Your task to perform on an android device: Open Android settings Image 0: 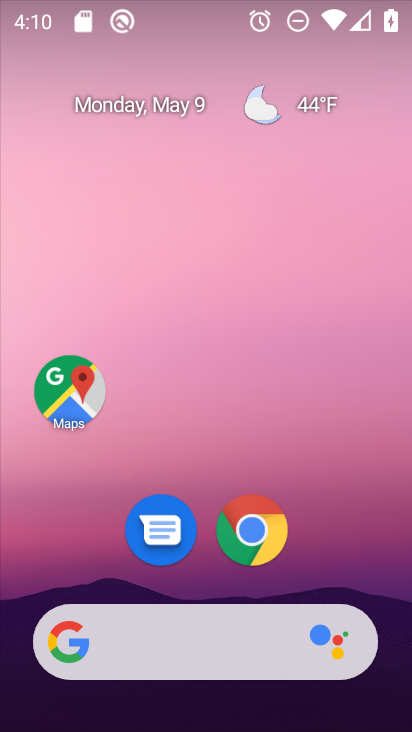
Step 0: press home button
Your task to perform on an android device: Open Android settings Image 1: 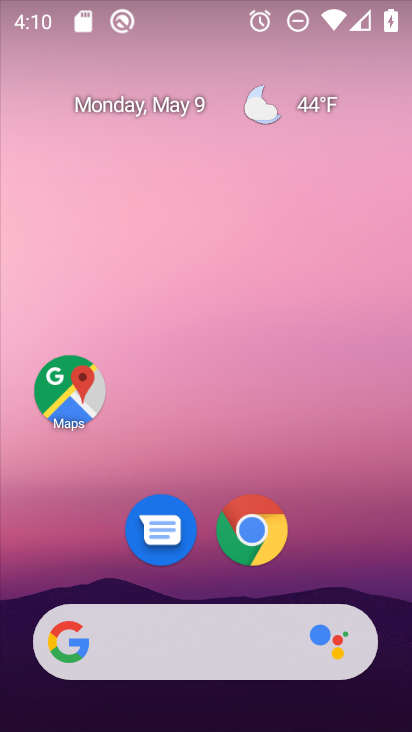
Step 1: press home button
Your task to perform on an android device: Open Android settings Image 2: 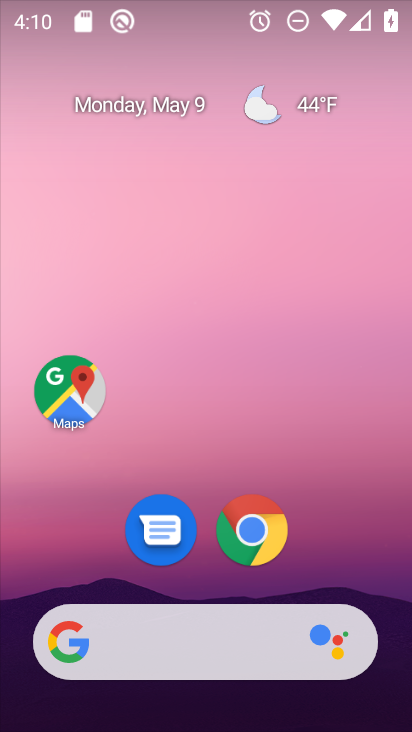
Step 2: drag from (207, 554) to (266, 83)
Your task to perform on an android device: Open Android settings Image 3: 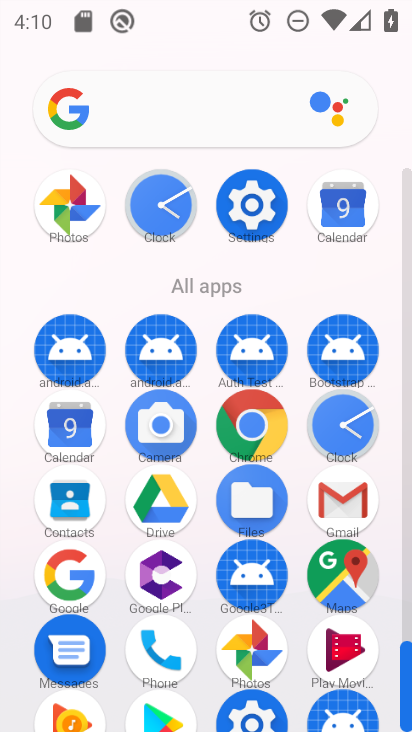
Step 3: click (252, 199)
Your task to perform on an android device: Open Android settings Image 4: 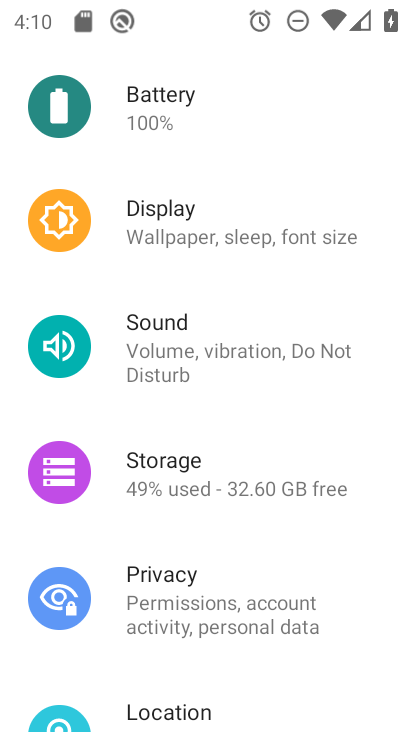
Step 4: drag from (183, 644) to (235, 209)
Your task to perform on an android device: Open Android settings Image 5: 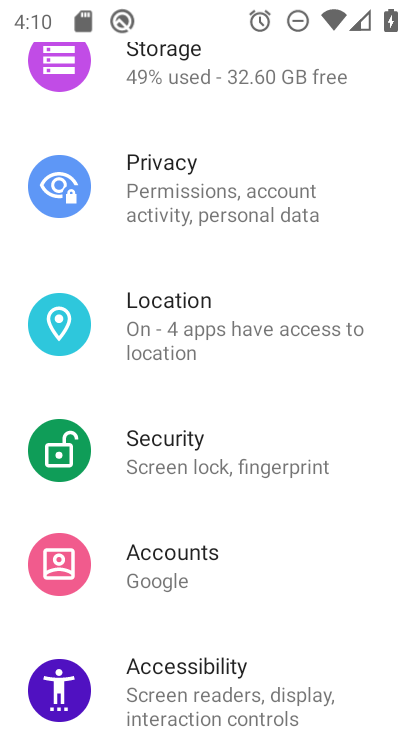
Step 5: drag from (223, 648) to (290, 224)
Your task to perform on an android device: Open Android settings Image 6: 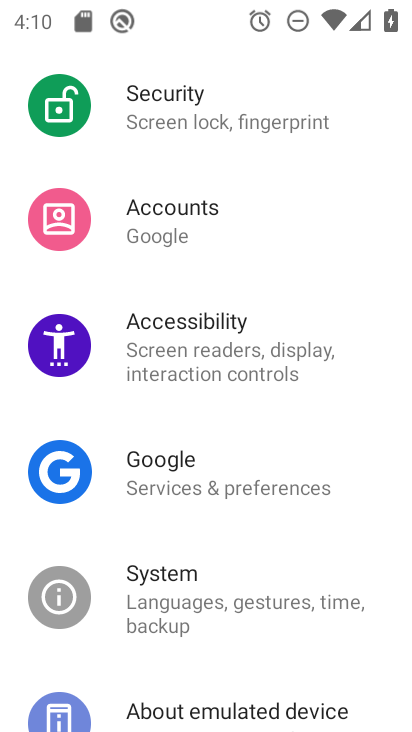
Step 6: click (188, 709)
Your task to perform on an android device: Open Android settings Image 7: 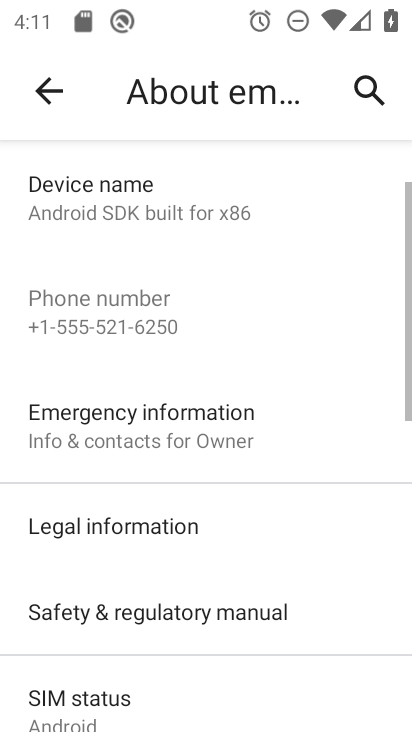
Step 7: drag from (178, 586) to (205, 189)
Your task to perform on an android device: Open Android settings Image 8: 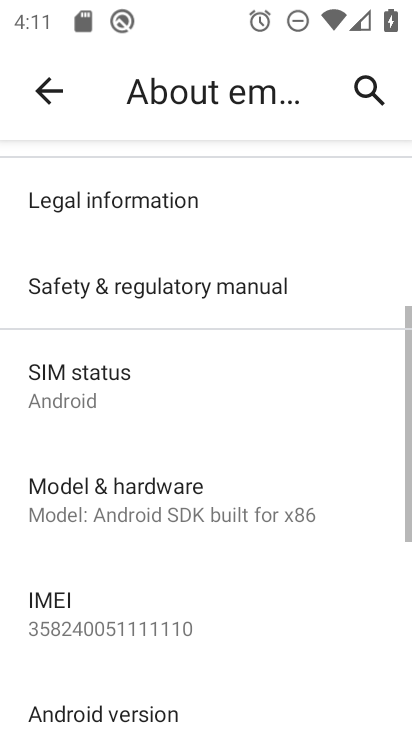
Step 8: click (168, 708)
Your task to perform on an android device: Open Android settings Image 9: 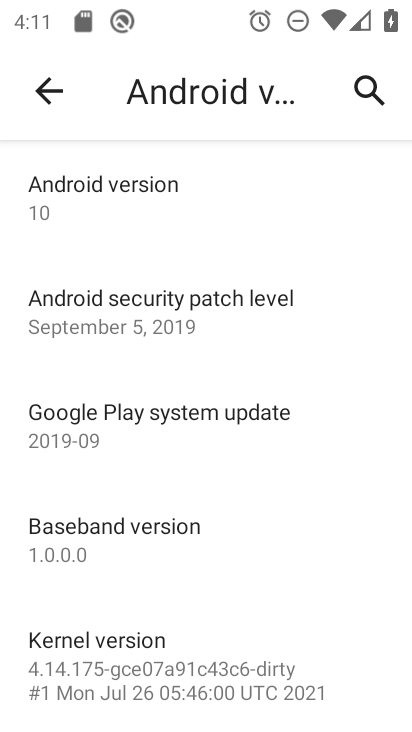
Step 9: task complete